Your task to perform on an android device: read, delete, or share a saved page in the chrome app Image 0: 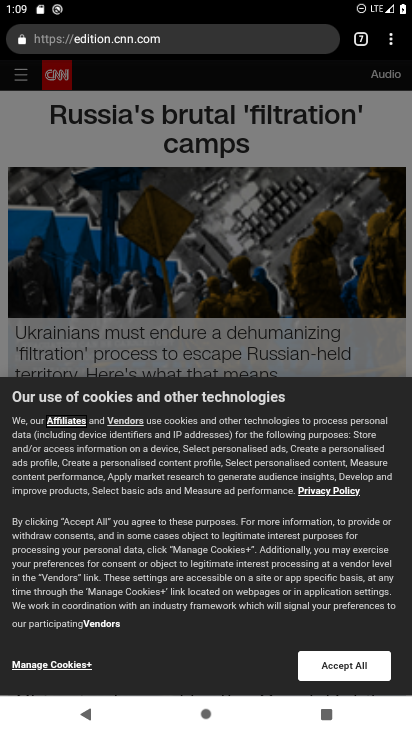
Step 0: press home button
Your task to perform on an android device: read, delete, or share a saved page in the chrome app Image 1: 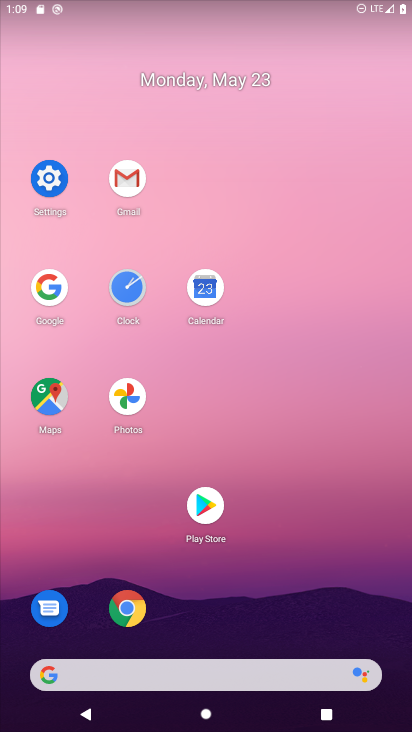
Step 1: click (133, 617)
Your task to perform on an android device: read, delete, or share a saved page in the chrome app Image 2: 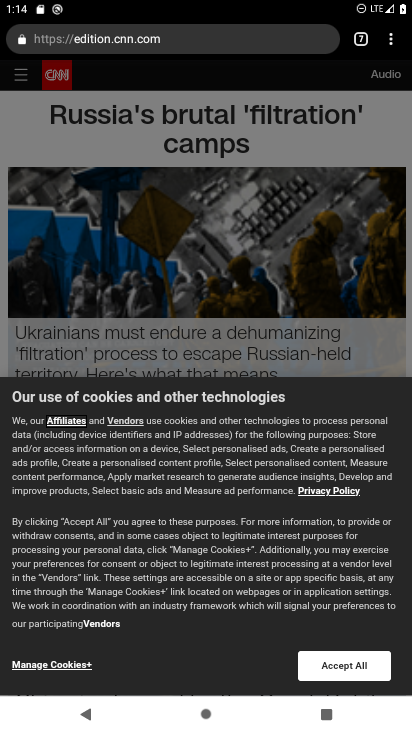
Step 2: click (391, 35)
Your task to perform on an android device: read, delete, or share a saved page in the chrome app Image 3: 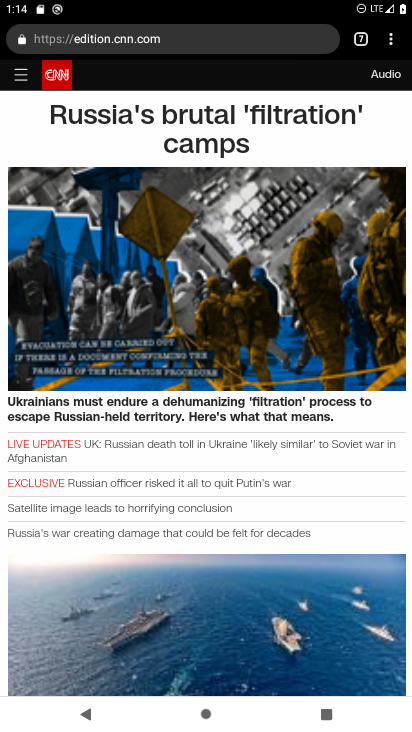
Step 3: click (386, 36)
Your task to perform on an android device: read, delete, or share a saved page in the chrome app Image 4: 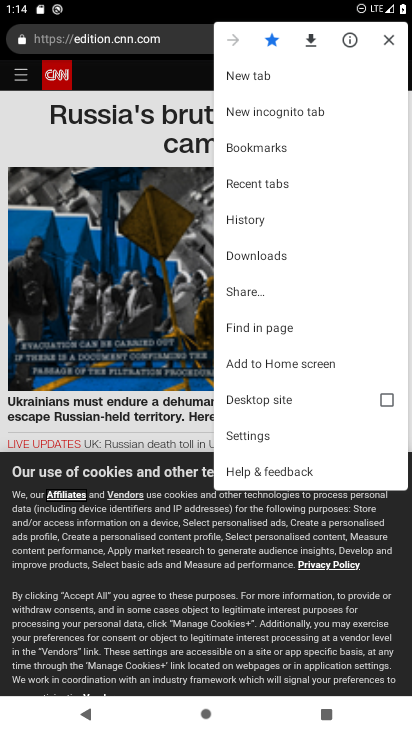
Step 4: click (300, 253)
Your task to perform on an android device: read, delete, or share a saved page in the chrome app Image 5: 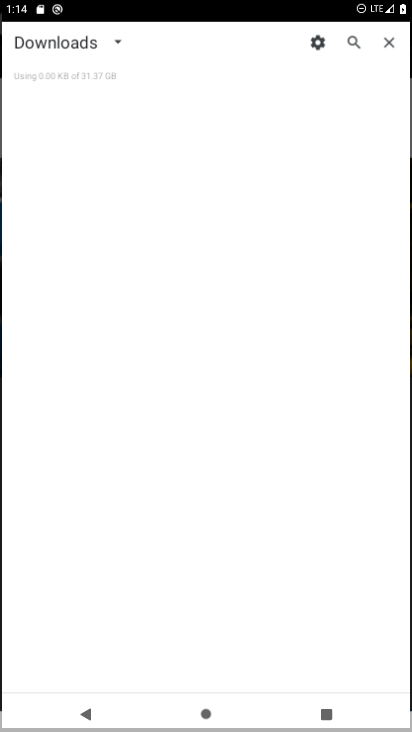
Step 5: task complete